Your task to perform on an android device: Open sound settings Image 0: 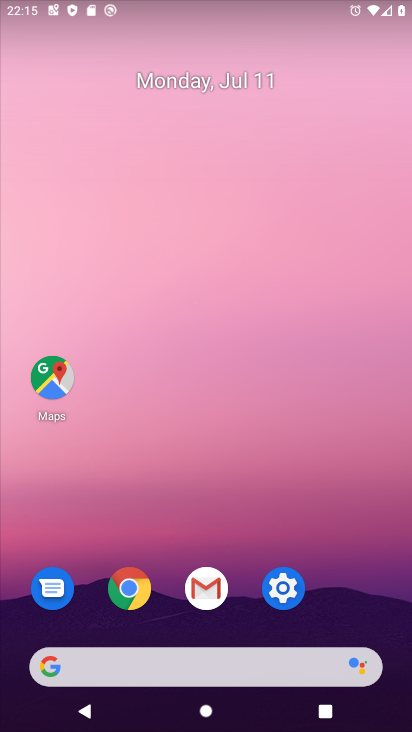
Step 0: click (286, 589)
Your task to perform on an android device: Open sound settings Image 1: 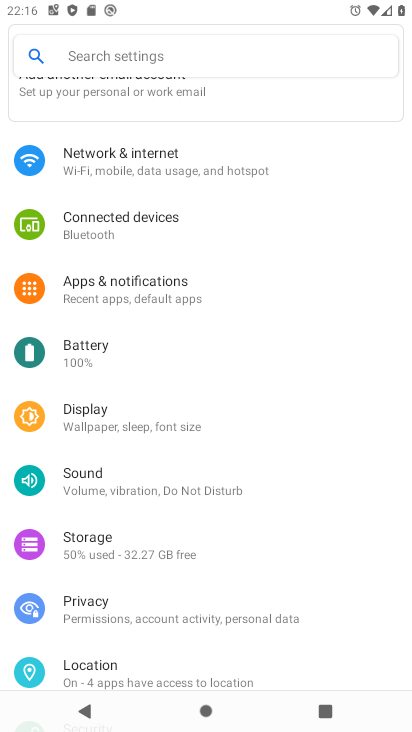
Step 1: click (115, 468)
Your task to perform on an android device: Open sound settings Image 2: 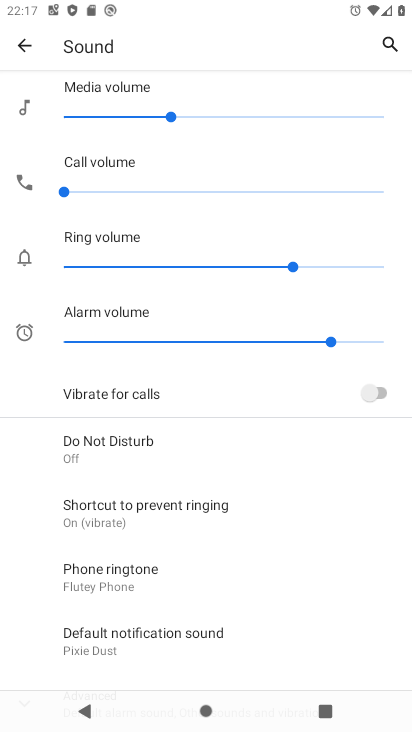
Step 2: task complete